Your task to perform on an android device: turn off airplane mode Image 0: 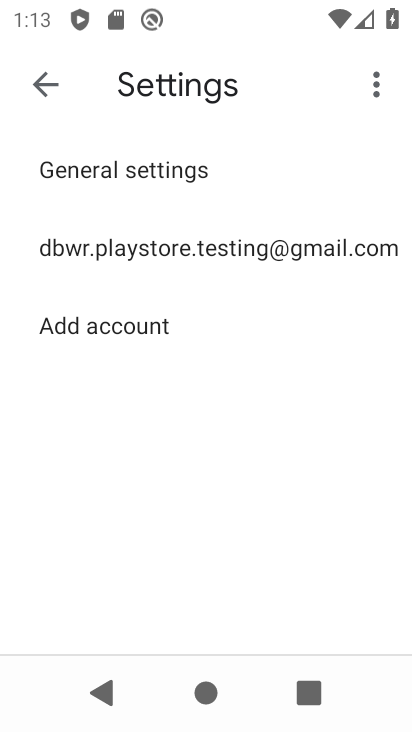
Step 0: press home button
Your task to perform on an android device: turn off airplane mode Image 1: 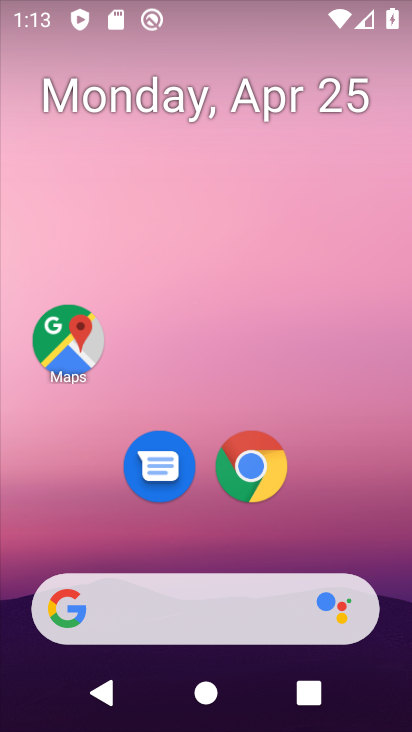
Step 1: drag from (289, 512) to (340, 55)
Your task to perform on an android device: turn off airplane mode Image 2: 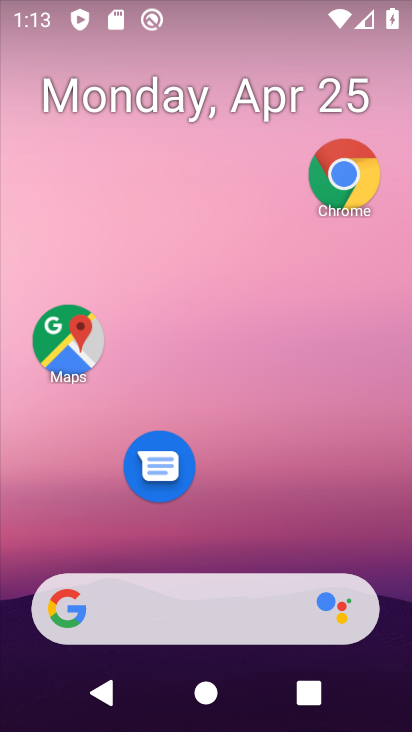
Step 2: drag from (277, 397) to (300, 59)
Your task to perform on an android device: turn off airplane mode Image 3: 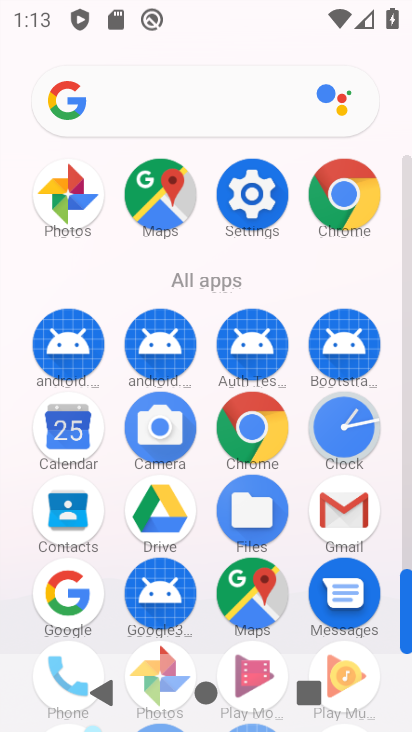
Step 3: click (234, 204)
Your task to perform on an android device: turn off airplane mode Image 4: 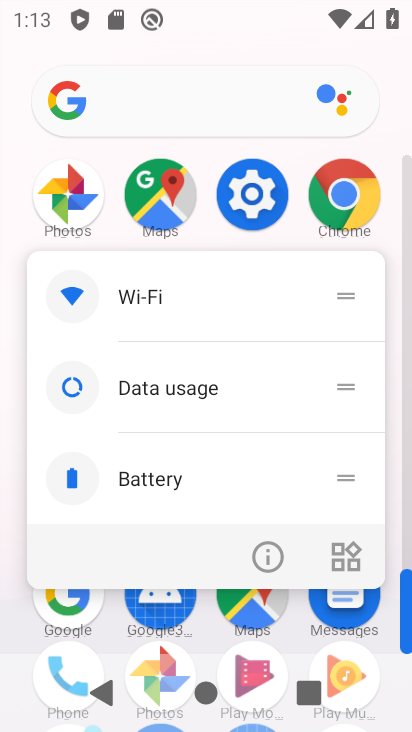
Step 4: click (234, 216)
Your task to perform on an android device: turn off airplane mode Image 5: 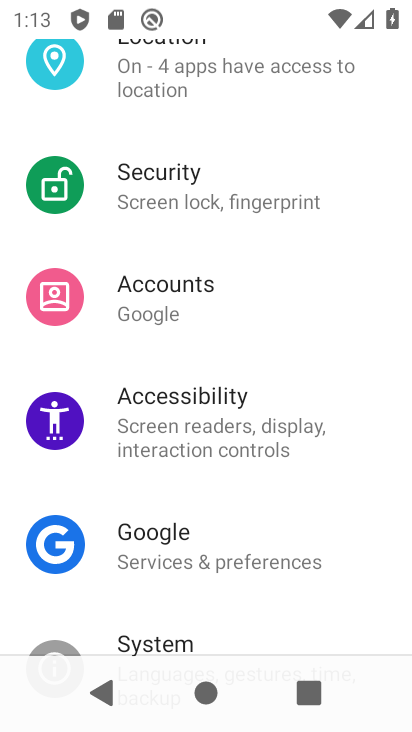
Step 5: drag from (214, 506) to (217, 285)
Your task to perform on an android device: turn off airplane mode Image 6: 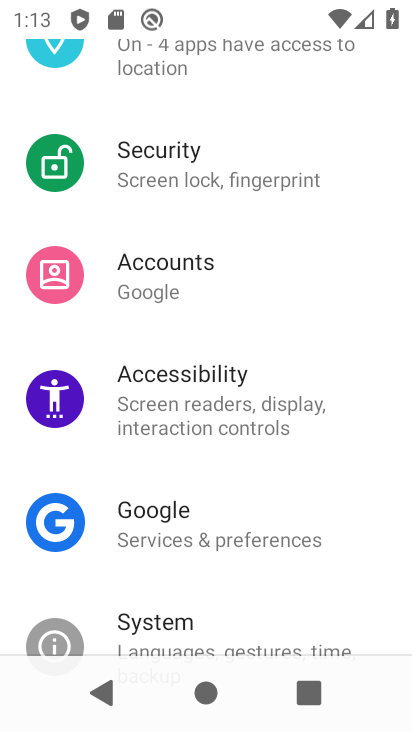
Step 6: drag from (220, 289) to (235, 608)
Your task to perform on an android device: turn off airplane mode Image 7: 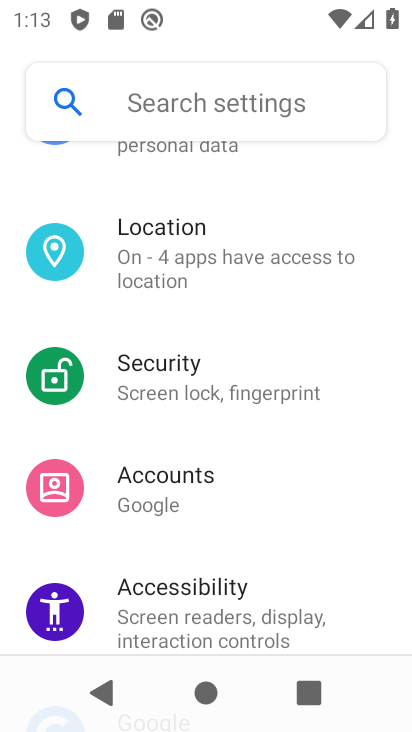
Step 7: drag from (261, 375) to (276, 589)
Your task to perform on an android device: turn off airplane mode Image 8: 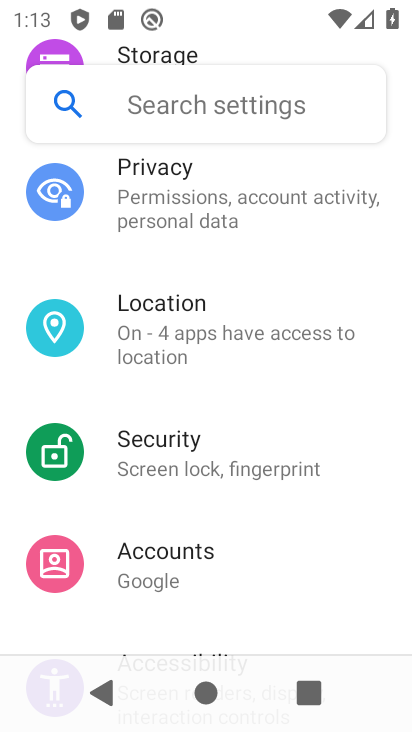
Step 8: drag from (283, 349) to (293, 634)
Your task to perform on an android device: turn off airplane mode Image 9: 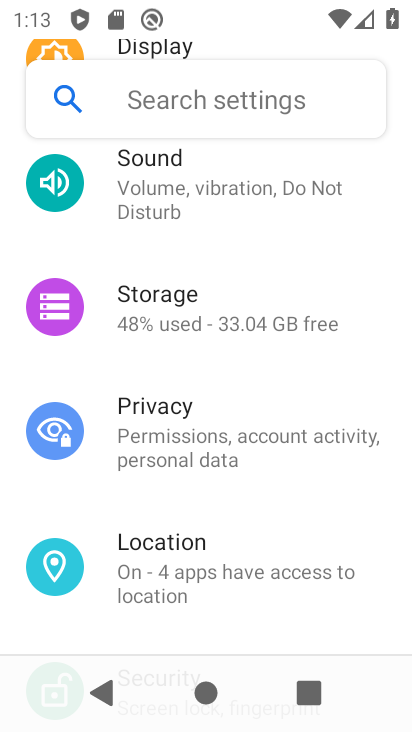
Step 9: drag from (258, 407) to (251, 658)
Your task to perform on an android device: turn off airplane mode Image 10: 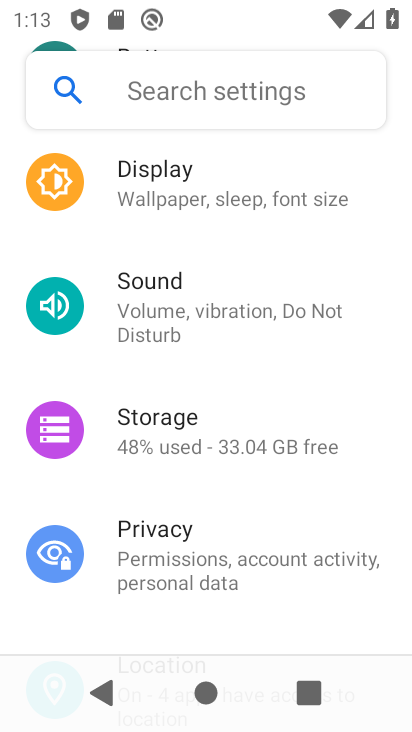
Step 10: drag from (259, 449) to (263, 599)
Your task to perform on an android device: turn off airplane mode Image 11: 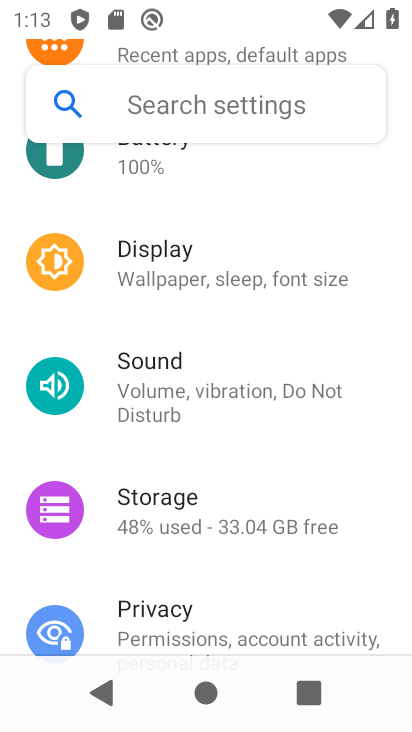
Step 11: drag from (250, 339) to (247, 533)
Your task to perform on an android device: turn off airplane mode Image 12: 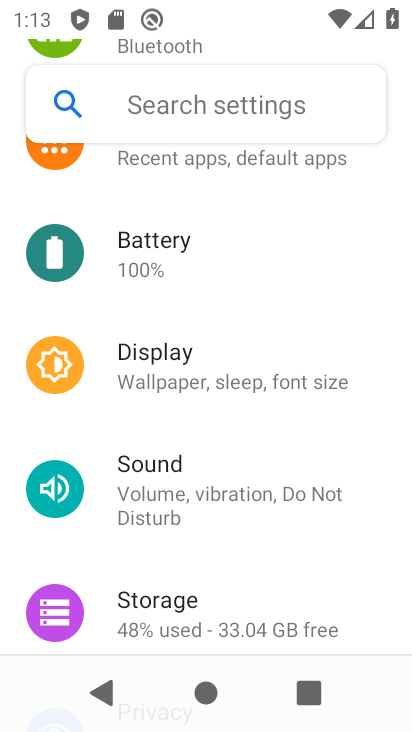
Step 12: drag from (234, 334) to (232, 508)
Your task to perform on an android device: turn off airplane mode Image 13: 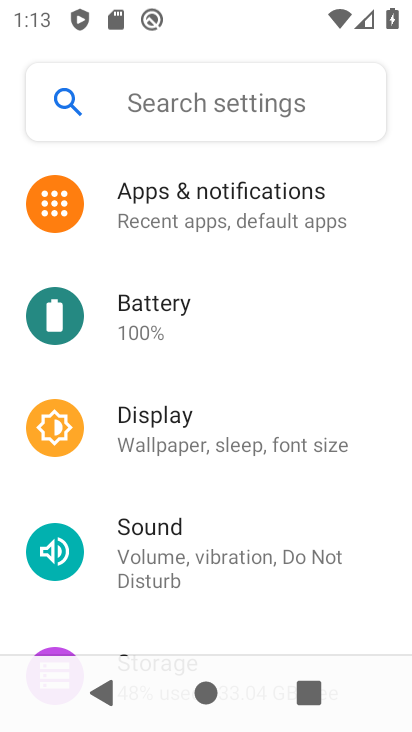
Step 13: drag from (276, 339) to (311, 480)
Your task to perform on an android device: turn off airplane mode Image 14: 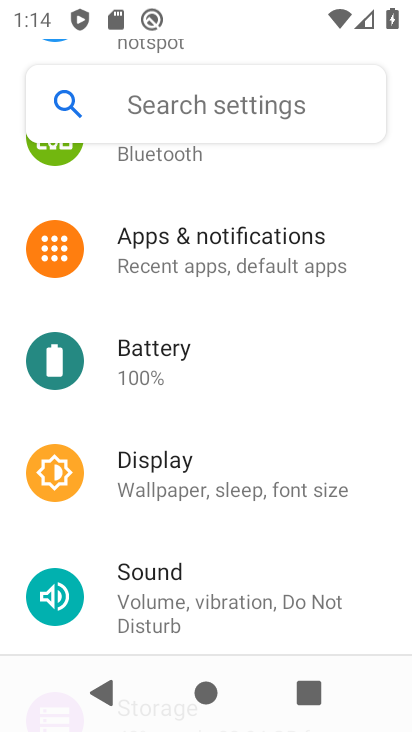
Step 14: drag from (295, 343) to (275, 521)
Your task to perform on an android device: turn off airplane mode Image 15: 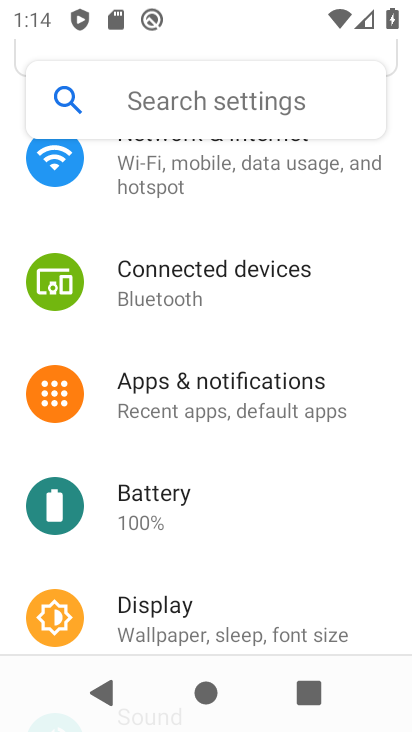
Step 15: drag from (273, 279) to (271, 527)
Your task to perform on an android device: turn off airplane mode Image 16: 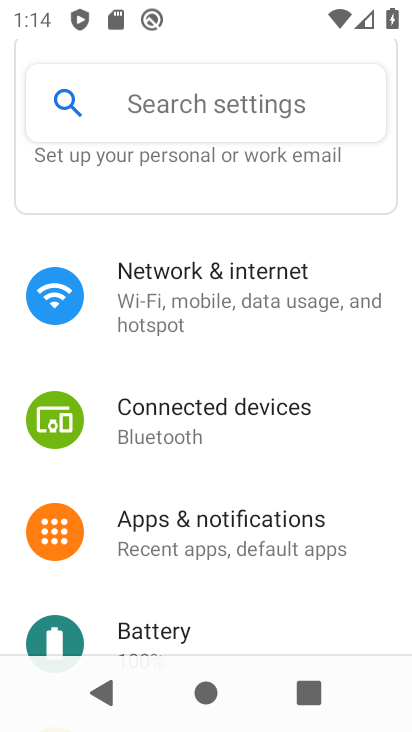
Step 16: click (243, 311)
Your task to perform on an android device: turn off airplane mode Image 17: 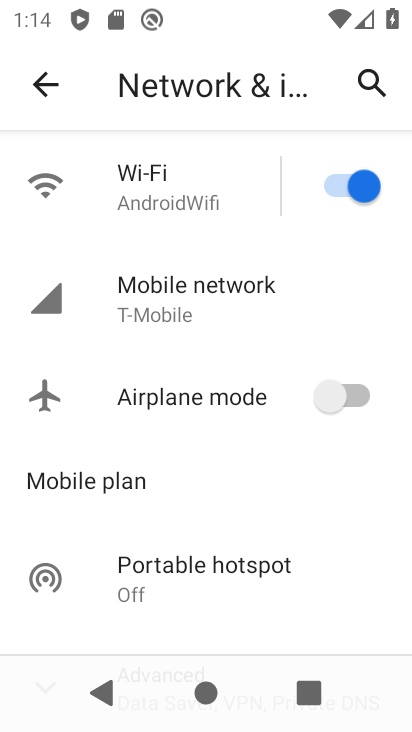
Step 17: task complete